Your task to perform on an android device: change notification settings in the gmail app Image 0: 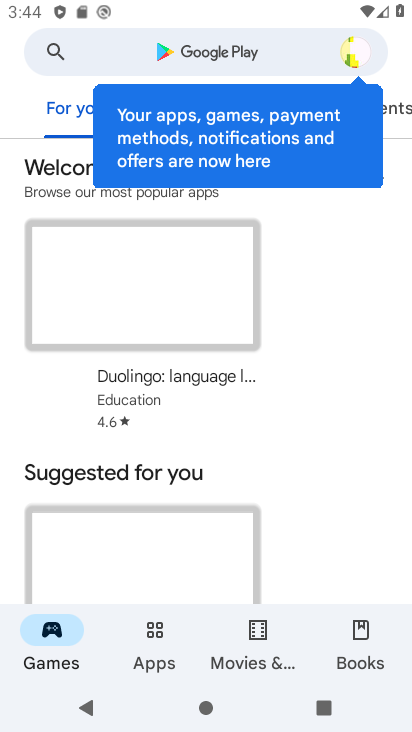
Step 0: press home button
Your task to perform on an android device: change notification settings in the gmail app Image 1: 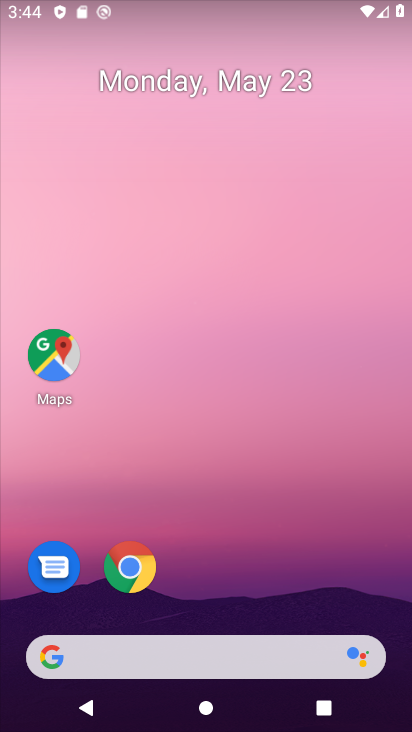
Step 1: drag from (400, 642) to (343, 180)
Your task to perform on an android device: change notification settings in the gmail app Image 2: 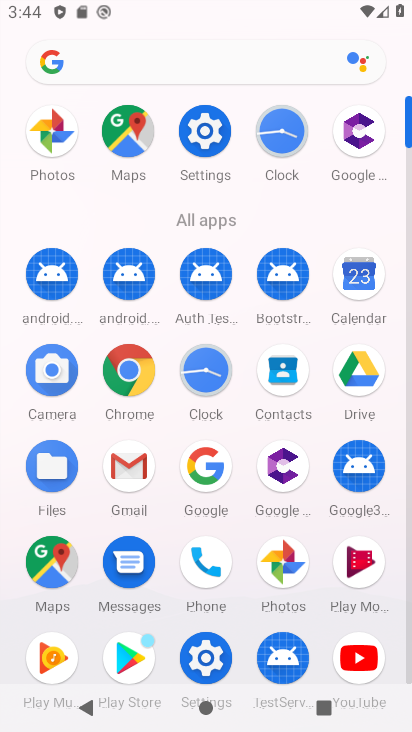
Step 2: click (409, 670)
Your task to perform on an android device: change notification settings in the gmail app Image 3: 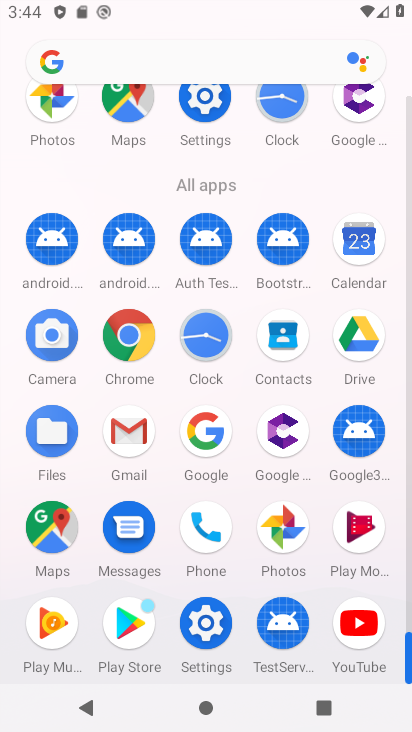
Step 3: click (126, 430)
Your task to perform on an android device: change notification settings in the gmail app Image 4: 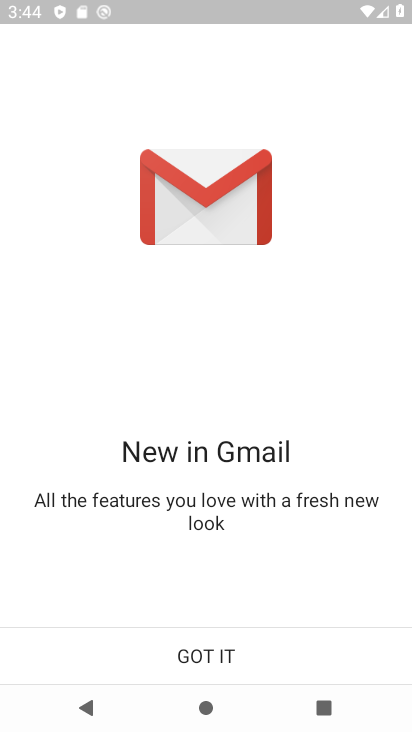
Step 4: click (209, 647)
Your task to perform on an android device: change notification settings in the gmail app Image 5: 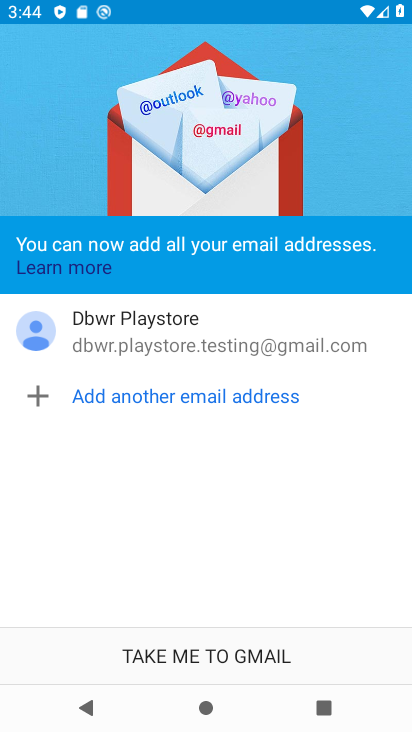
Step 5: click (209, 647)
Your task to perform on an android device: change notification settings in the gmail app Image 6: 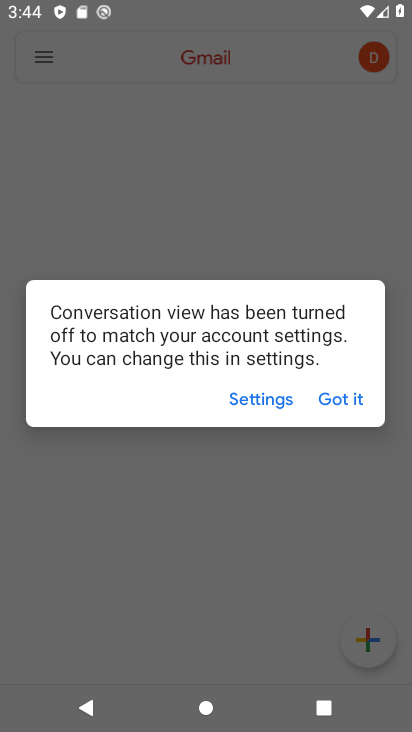
Step 6: click (348, 396)
Your task to perform on an android device: change notification settings in the gmail app Image 7: 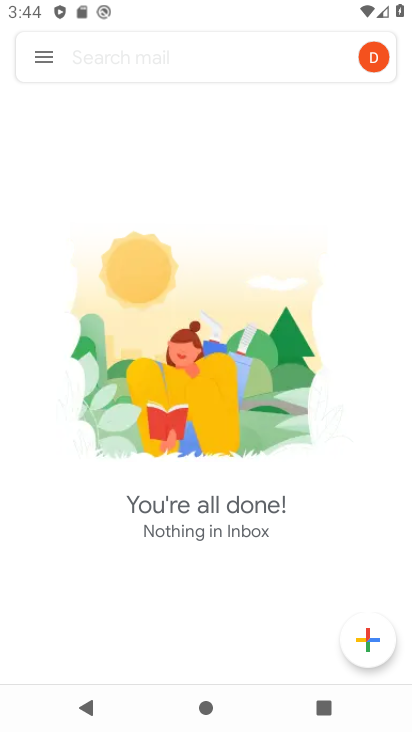
Step 7: click (41, 60)
Your task to perform on an android device: change notification settings in the gmail app Image 8: 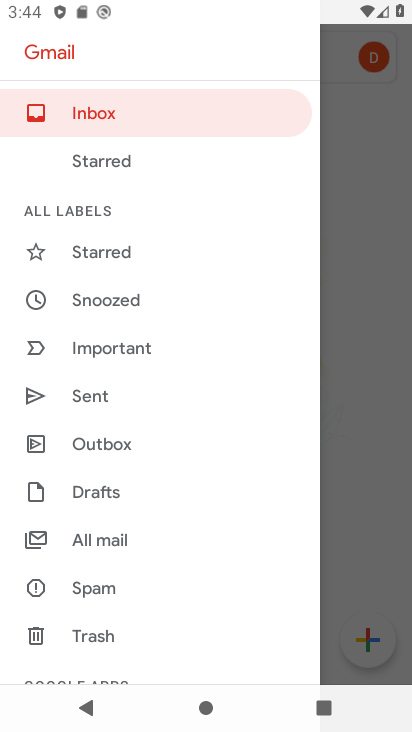
Step 8: drag from (200, 609) to (183, 177)
Your task to perform on an android device: change notification settings in the gmail app Image 9: 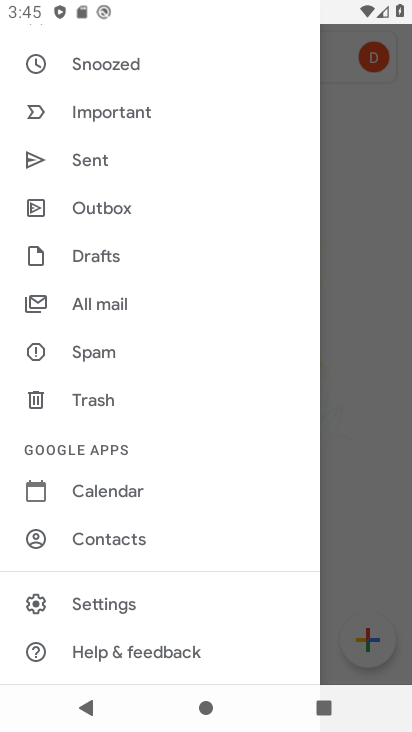
Step 9: click (105, 597)
Your task to perform on an android device: change notification settings in the gmail app Image 10: 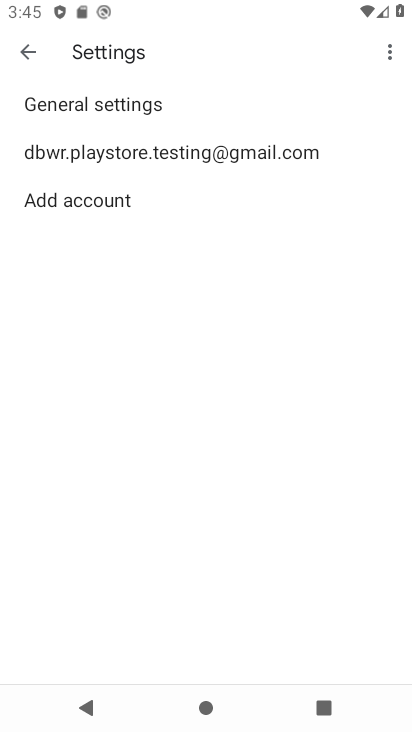
Step 10: click (136, 149)
Your task to perform on an android device: change notification settings in the gmail app Image 11: 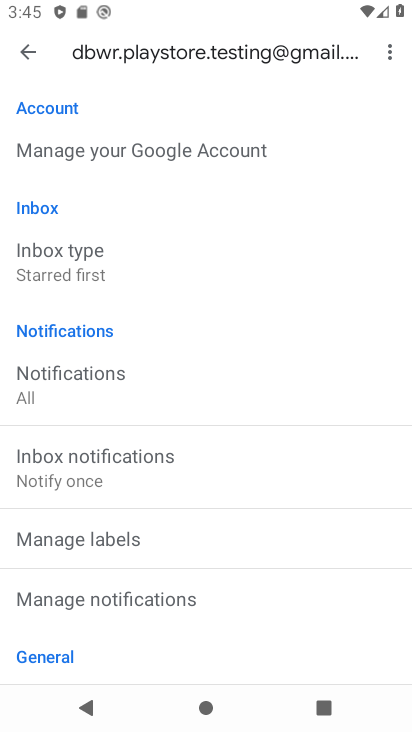
Step 11: click (156, 595)
Your task to perform on an android device: change notification settings in the gmail app Image 12: 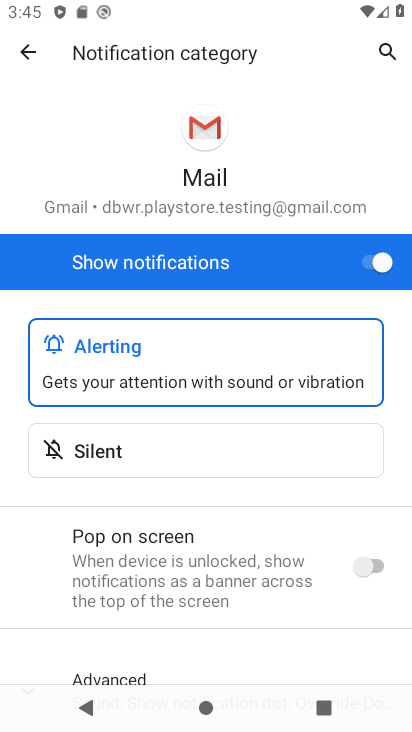
Step 12: click (368, 265)
Your task to perform on an android device: change notification settings in the gmail app Image 13: 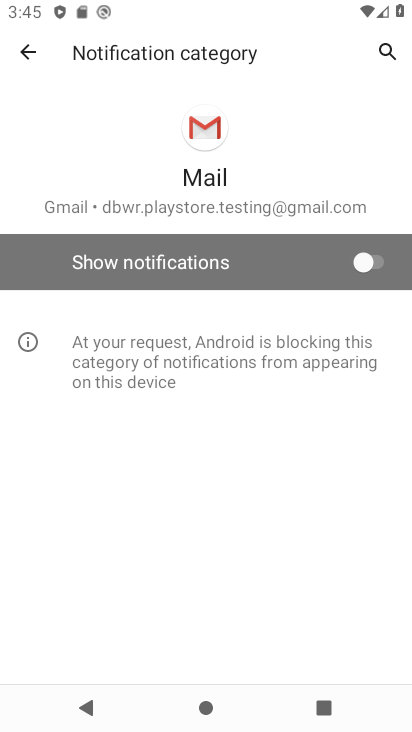
Step 13: task complete